Your task to perform on an android device: Add sony triple a to the cart on bestbuy.com, then select checkout. Image 0: 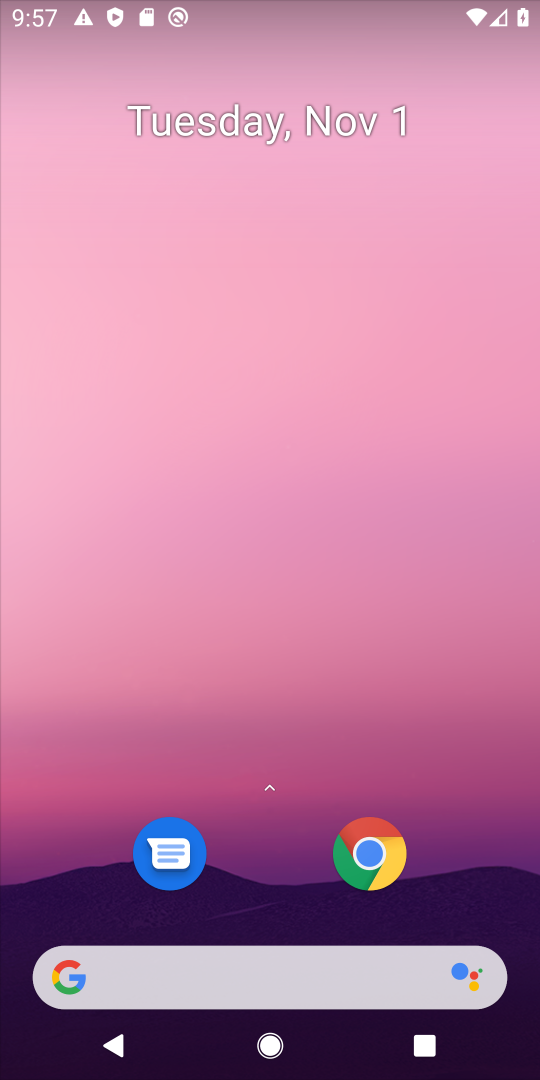
Step 0: click (270, 970)
Your task to perform on an android device: Add sony triple a to the cart on bestbuy.com, then select checkout. Image 1: 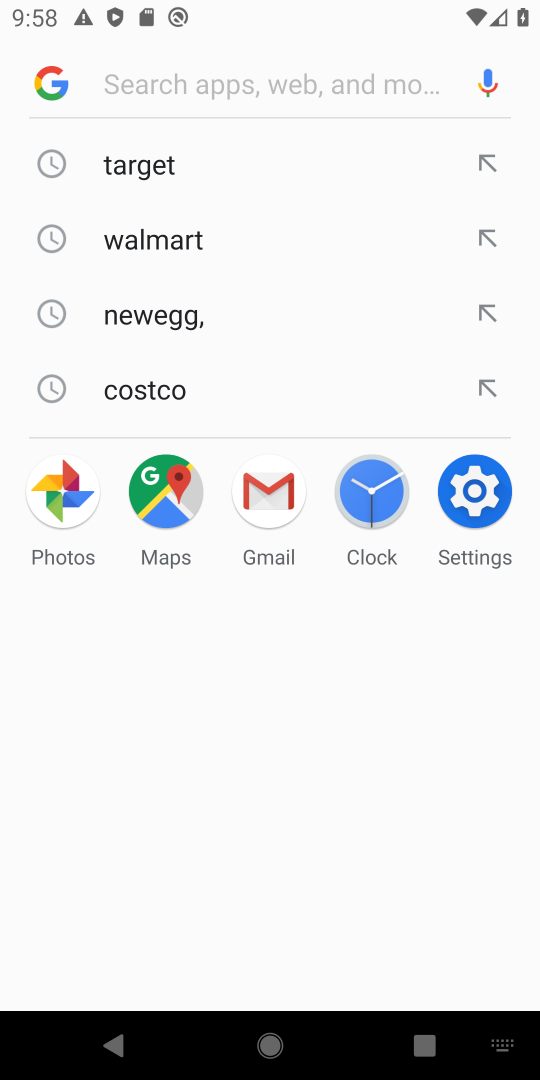
Step 1: type "bestbuy"
Your task to perform on an android device: Add sony triple a to the cart on bestbuy.com, then select checkout. Image 2: 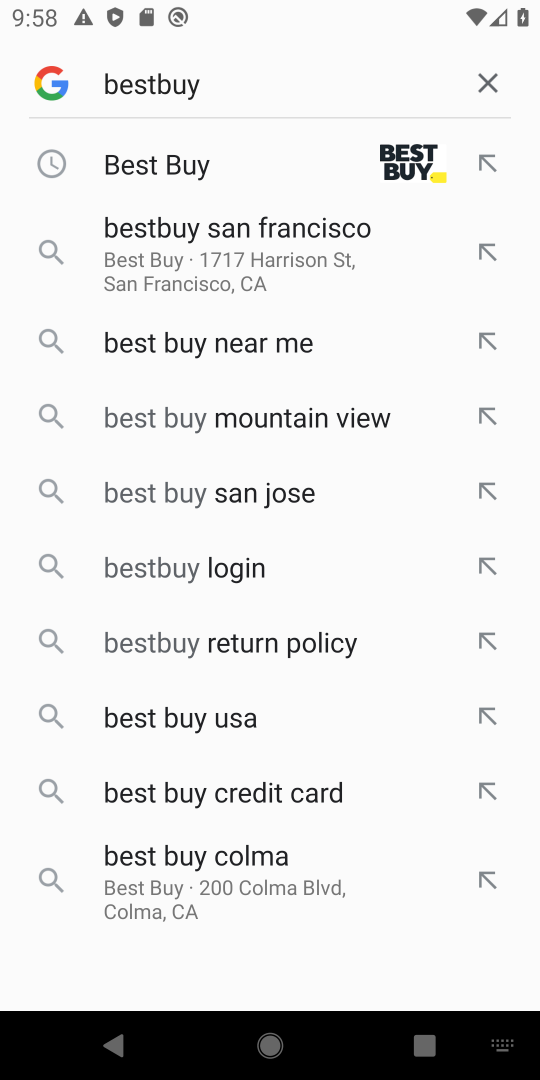
Step 2: click (133, 160)
Your task to perform on an android device: Add sony triple a to the cart on bestbuy.com, then select checkout. Image 3: 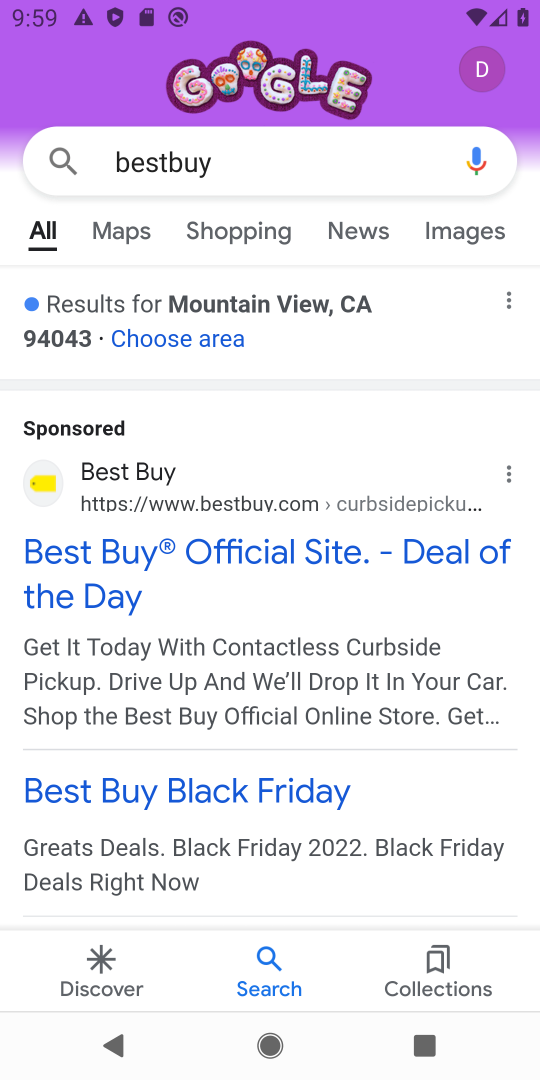
Step 3: click (147, 587)
Your task to perform on an android device: Add sony triple a to the cart on bestbuy.com, then select checkout. Image 4: 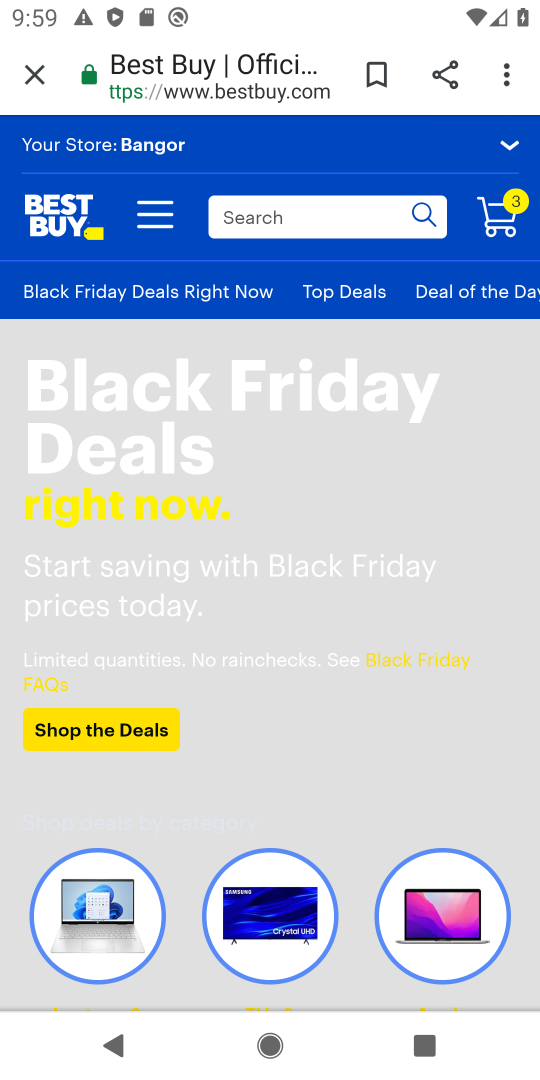
Step 4: click (289, 235)
Your task to perform on an android device: Add sony triple a to the cart on bestbuy.com, then select checkout. Image 5: 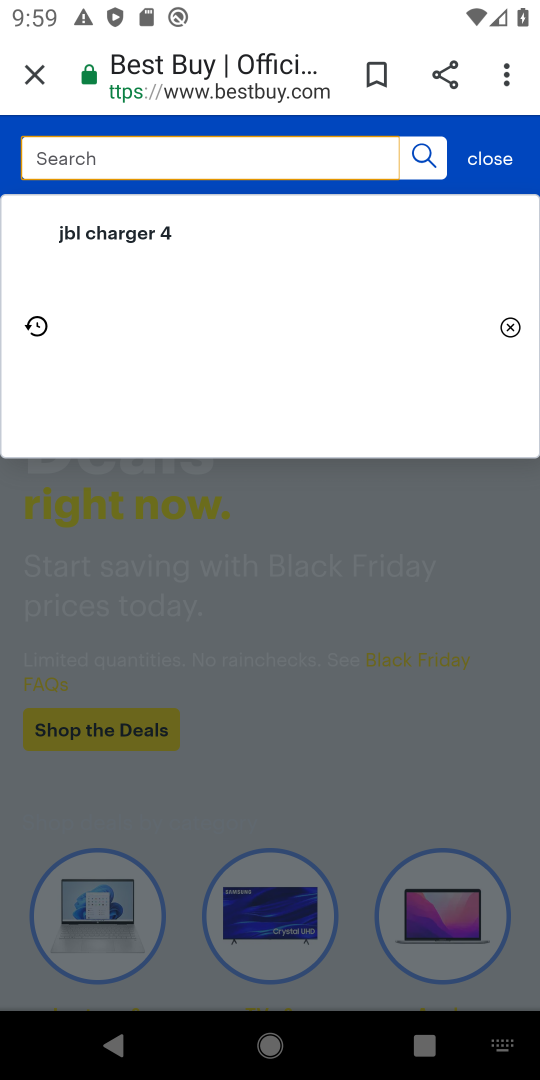
Step 5: type "sony triple a"
Your task to perform on an android device: Add sony triple a to the cart on bestbuy.com, then select checkout. Image 6: 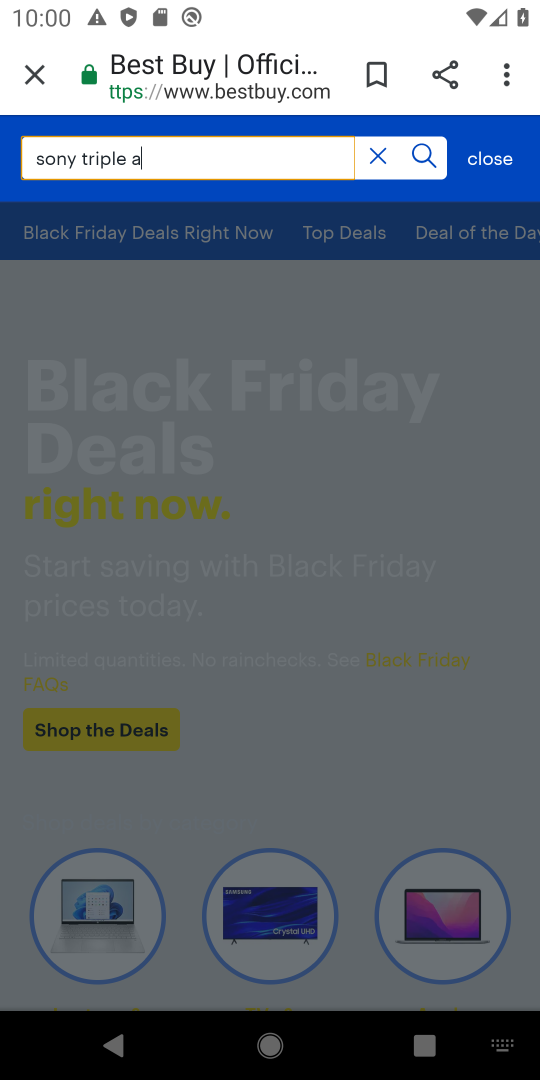
Step 6: click (420, 163)
Your task to perform on an android device: Add sony triple a to the cart on bestbuy.com, then select checkout. Image 7: 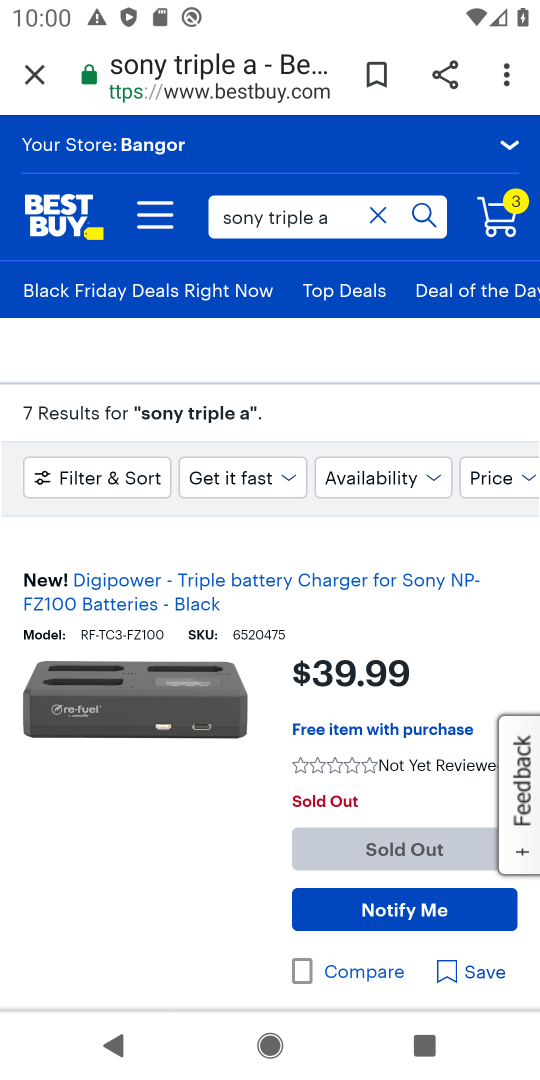
Step 7: task complete